Your task to perform on an android device: see creations saved in the google photos Image 0: 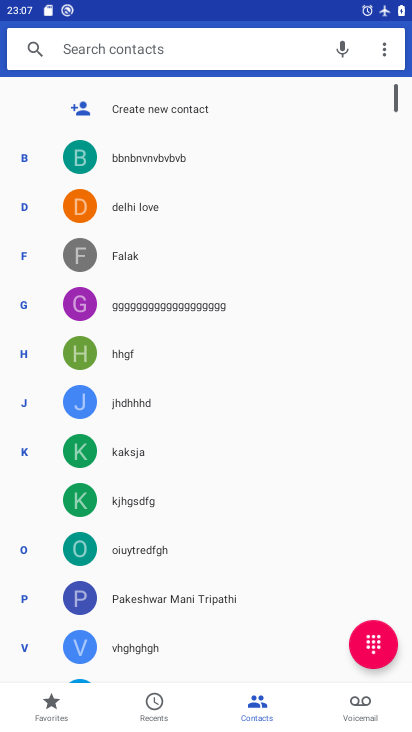
Step 0: press home button
Your task to perform on an android device: see creations saved in the google photos Image 1: 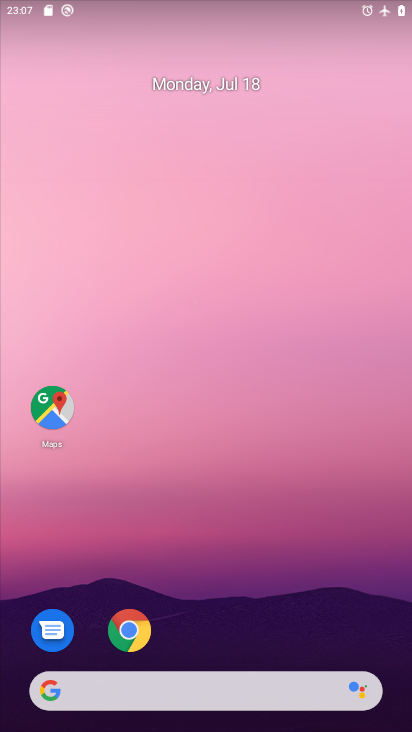
Step 1: drag from (205, 669) to (194, 217)
Your task to perform on an android device: see creations saved in the google photos Image 2: 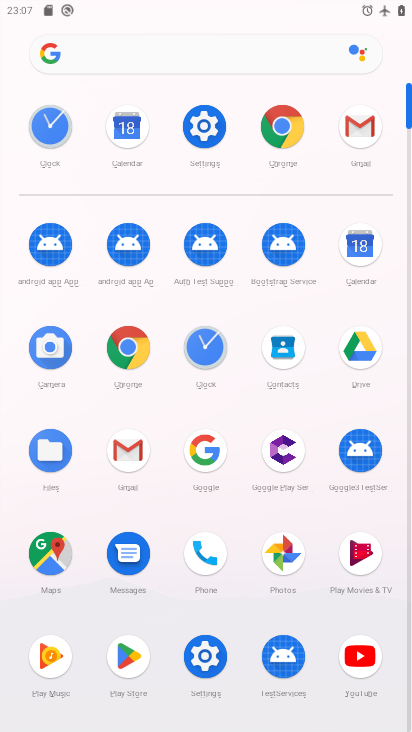
Step 2: click (295, 564)
Your task to perform on an android device: see creations saved in the google photos Image 3: 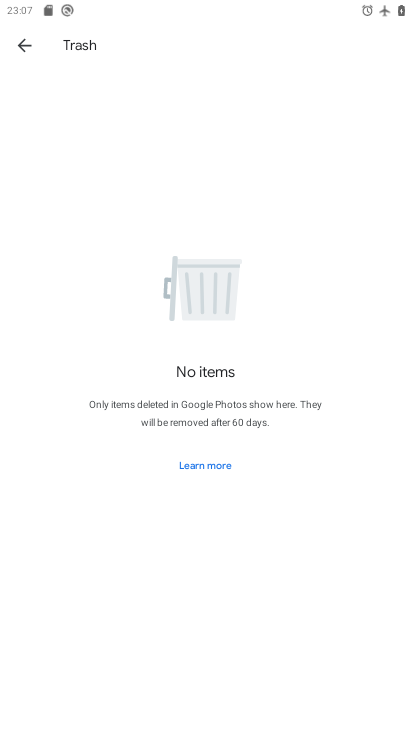
Step 3: click (14, 47)
Your task to perform on an android device: see creations saved in the google photos Image 4: 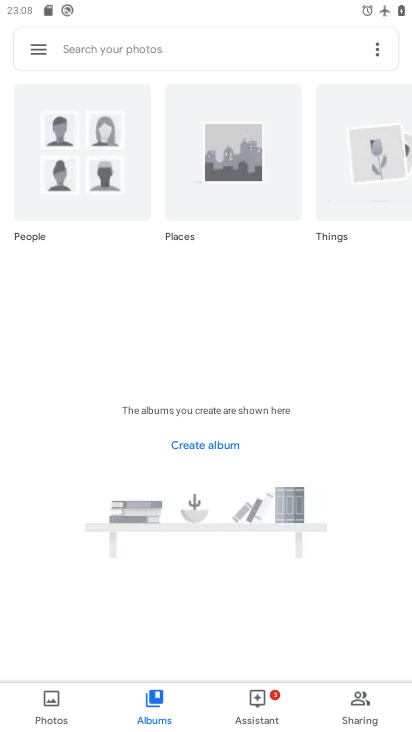
Step 4: click (167, 695)
Your task to perform on an android device: see creations saved in the google photos Image 5: 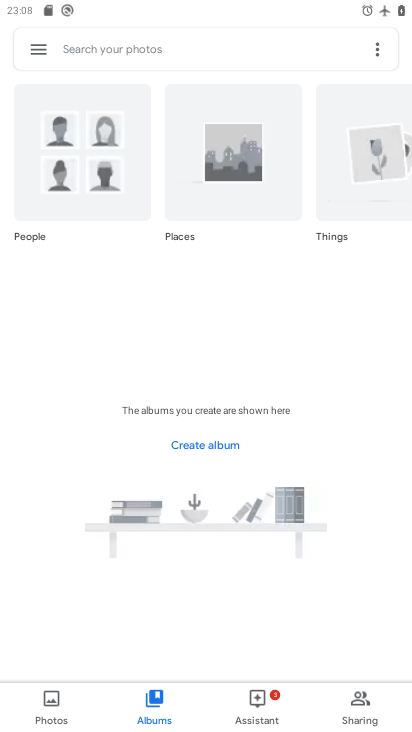
Step 5: click (65, 698)
Your task to perform on an android device: see creations saved in the google photos Image 6: 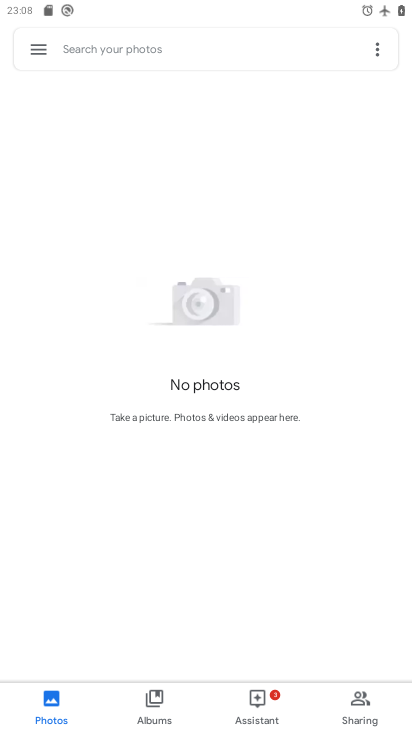
Step 6: task complete